Your task to perform on an android device: Play the new Demi Lovato video on YouTube Image 0: 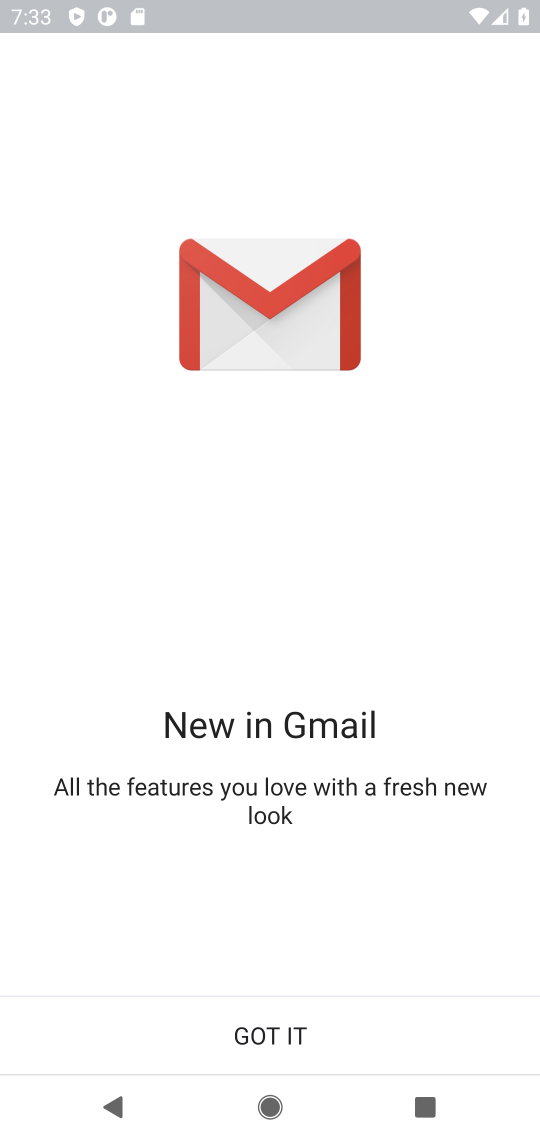
Step 0: press home button
Your task to perform on an android device: Play the new Demi Lovato video on YouTube Image 1: 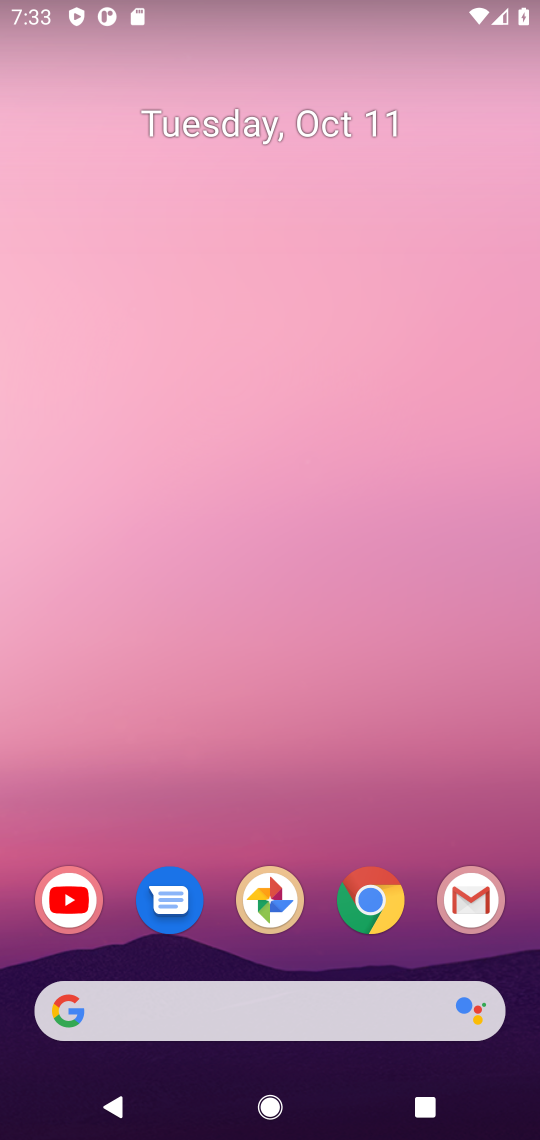
Step 1: press home button
Your task to perform on an android device: Play the new Demi Lovato video on YouTube Image 2: 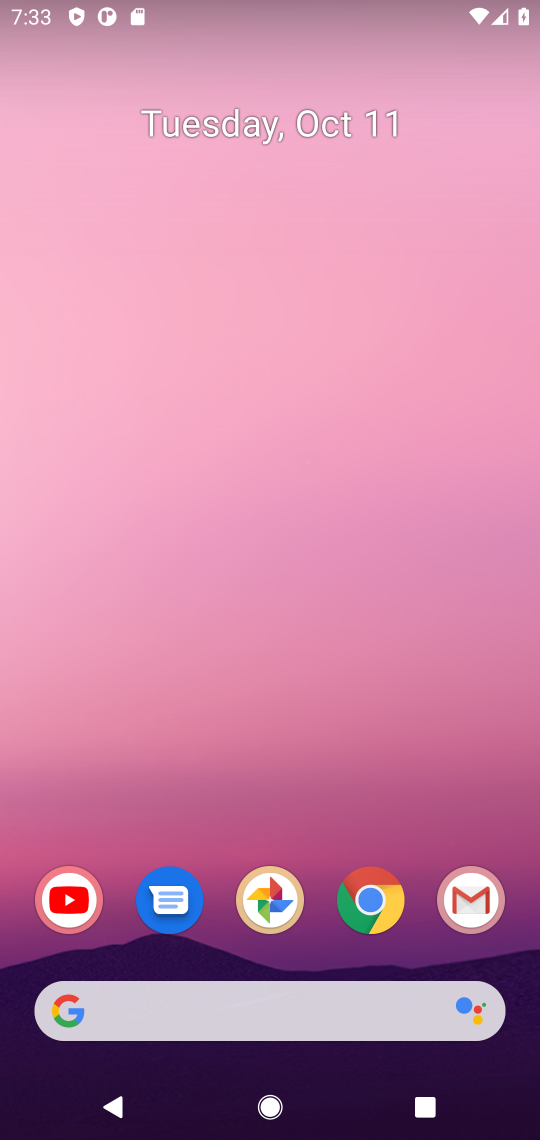
Step 2: click (80, 902)
Your task to perform on an android device: Play the new Demi Lovato video on YouTube Image 3: 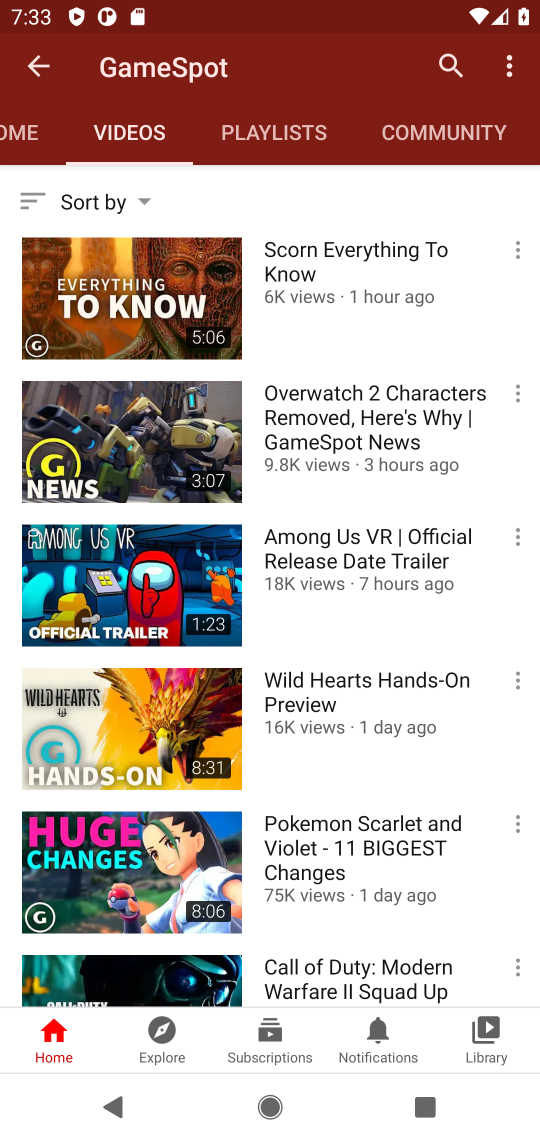
Step 3: click (468, 65)
Your task to perform on an android device: Play the new Demi Lovato video on YouTube Image 4: 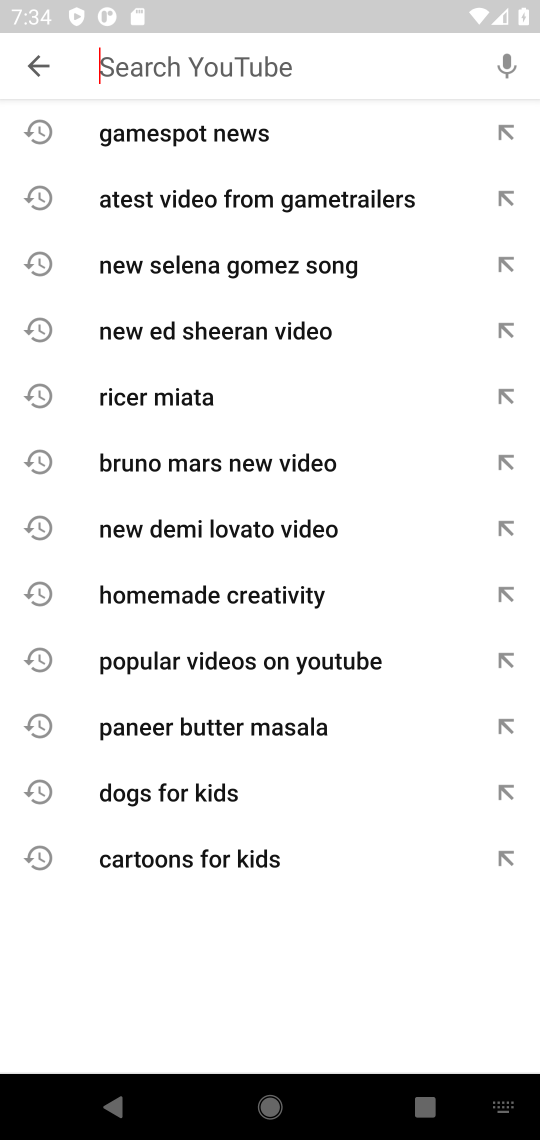
Step 4: click (316, 79)
Your task to perform on an android device: Play the new Demi Lovato video on YouTube Image 5: 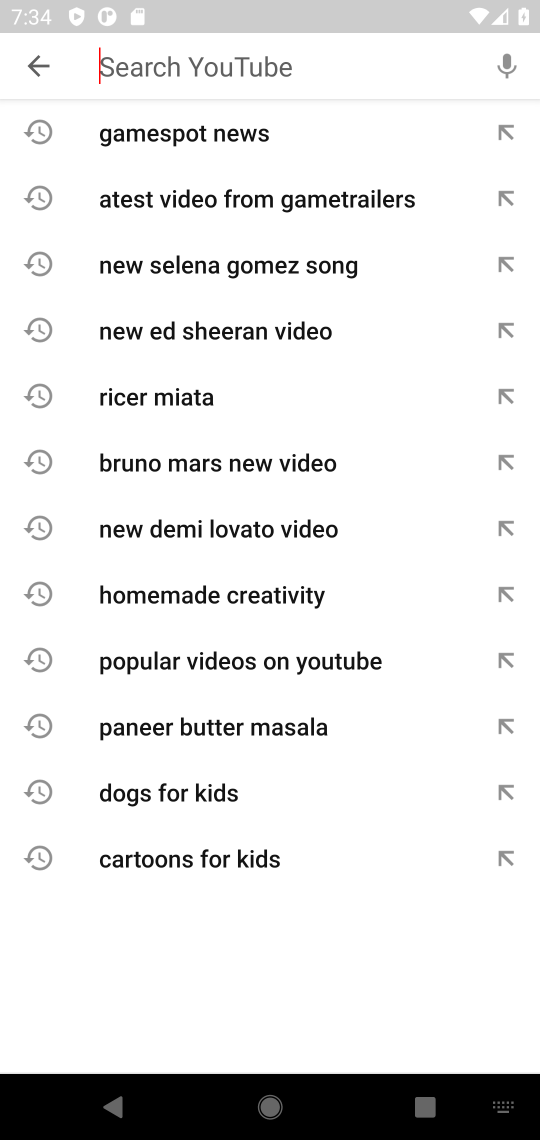
Step 5: type "Demi Lovato"
Your task to perform on an android device: Play the new Demi Lovato video on YouTube Image 6: 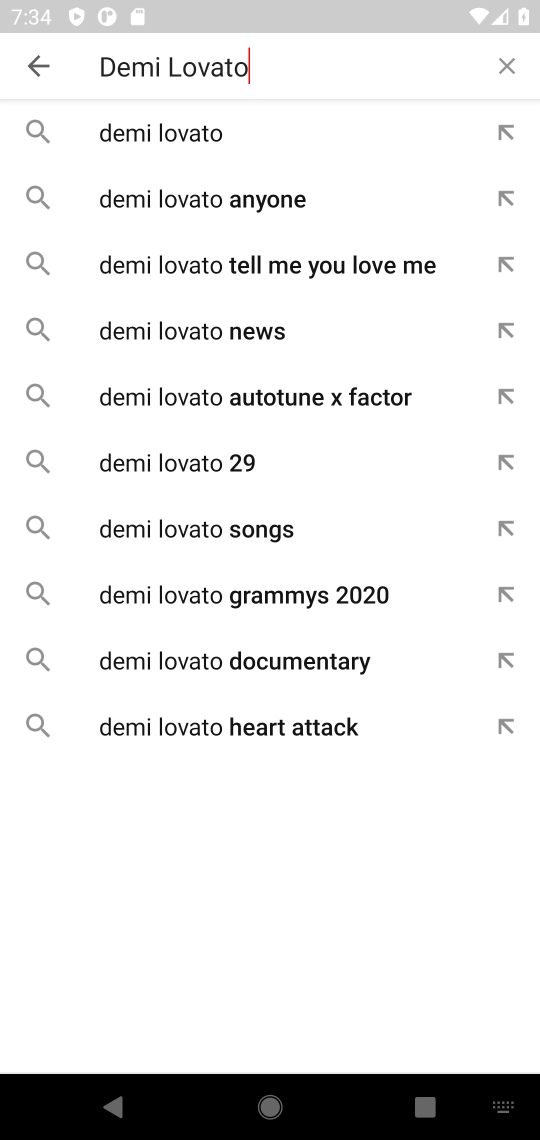
Step 6: click (309, 140)
Your task to perform on an android device: Play the new Demi Lovato video on YouTube Image 7: 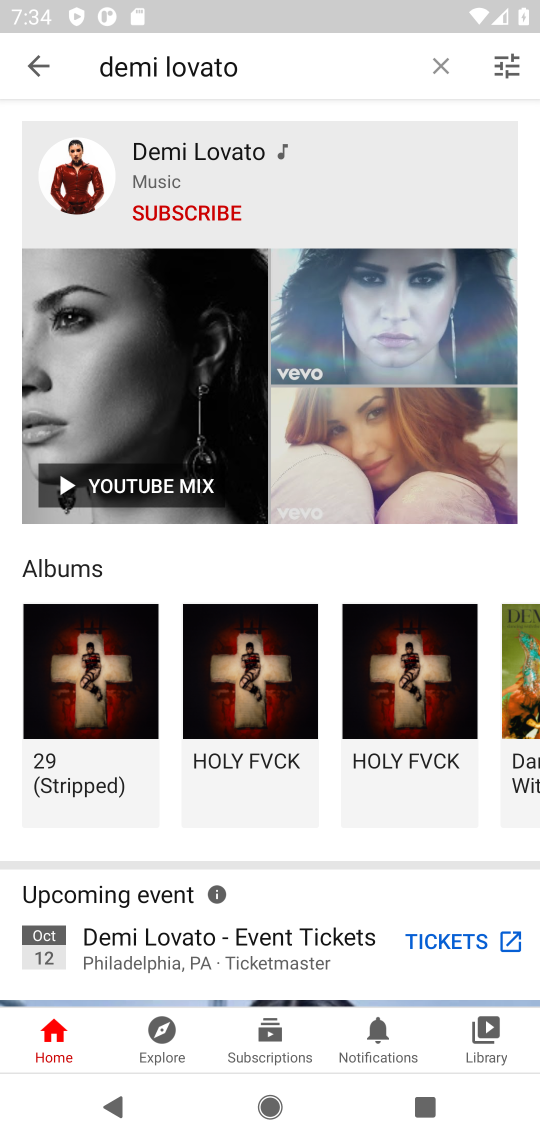
Step 7: click (283, 170)
Your task to perform on an android device: Play the new Demi Lovato video on YouTube Image 8: 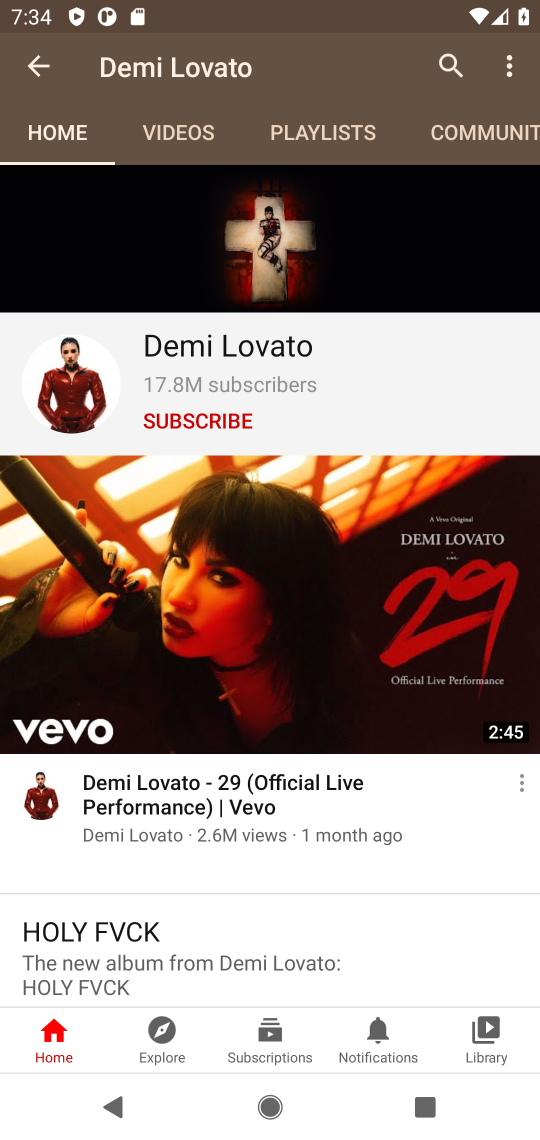
Step 8: click (186, 126)
Your task to perform on an android device: Play the new Demi Lovato video on YouTube Image 9: 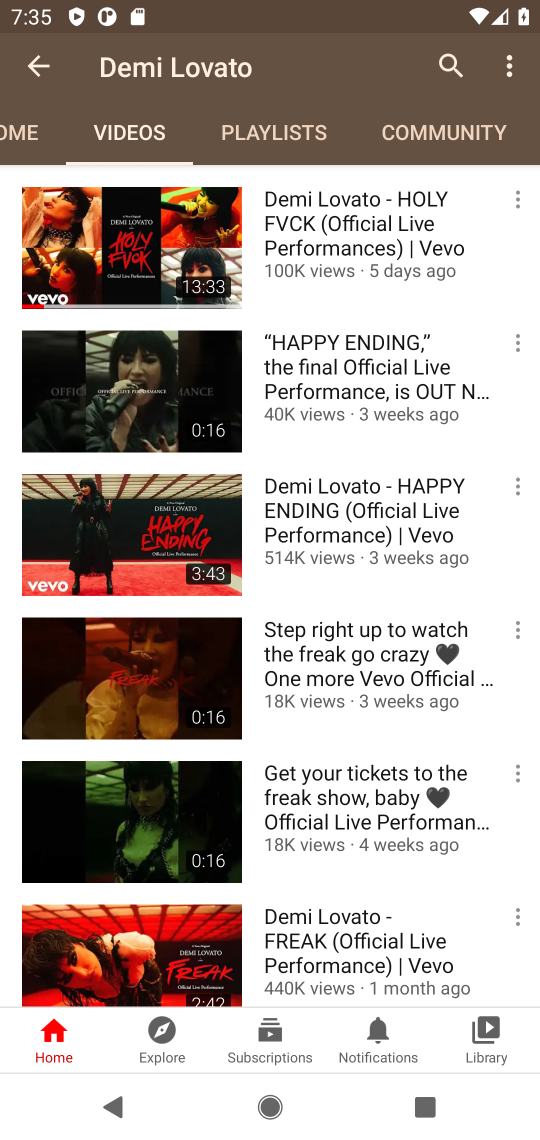
Step 9: click (406, 212)
Your task to perform on an android device: Play the new Demi Lovato video on YouTube Image 10: 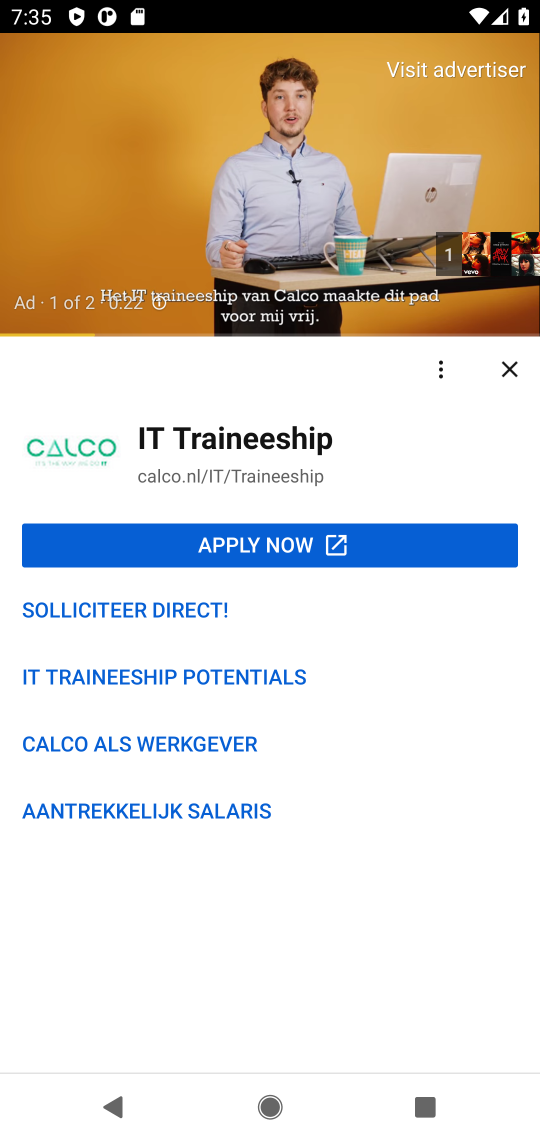
Step 10: task complete